Your task to perform on an android device: Is it going to rain today? Image 0: 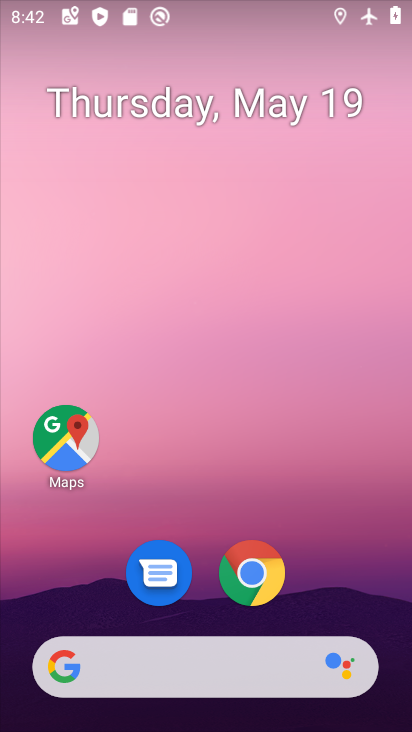
Step 0: click (109, 675)
Your task to perform on an android device: Is it going to rain today? Image 1: 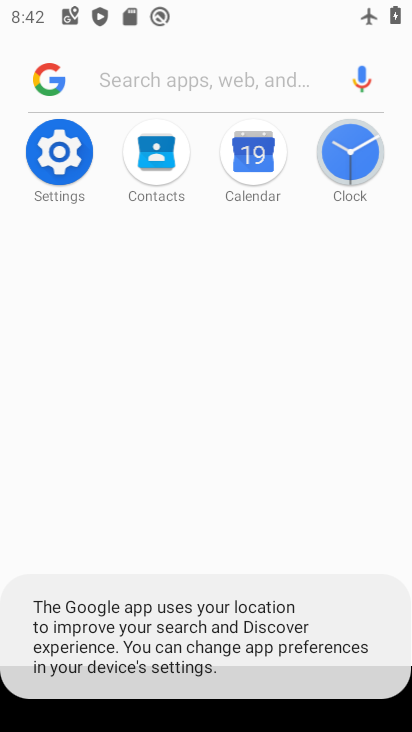
Step 1: click (106, 83)
Your task to perform on an android device: Is it going to rain today? Image 2: 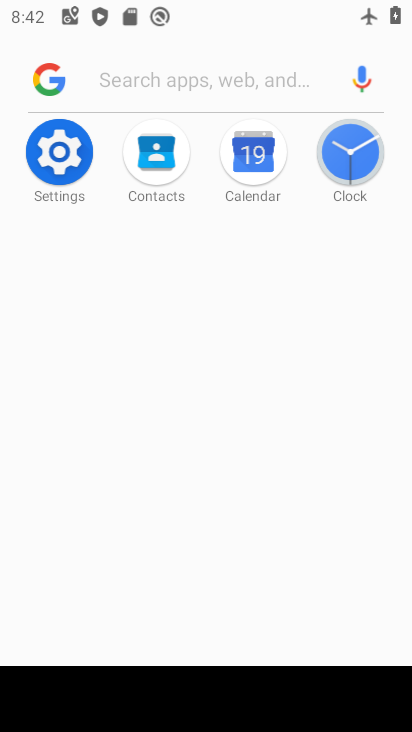
Step 2: type "weather"
Your task to perform on an android device: Is it going to rain today? Image 3: 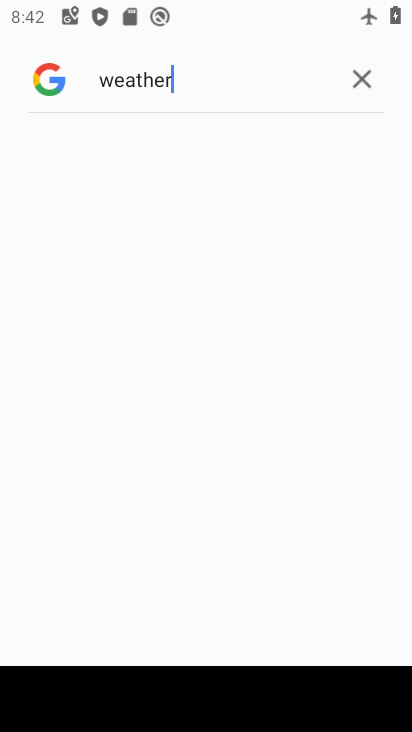
Step 3: task complete